Your task to perform on an android device: Empty the shopping cart on newegg. Add "dell xps" to the cart on newegg Image 0: 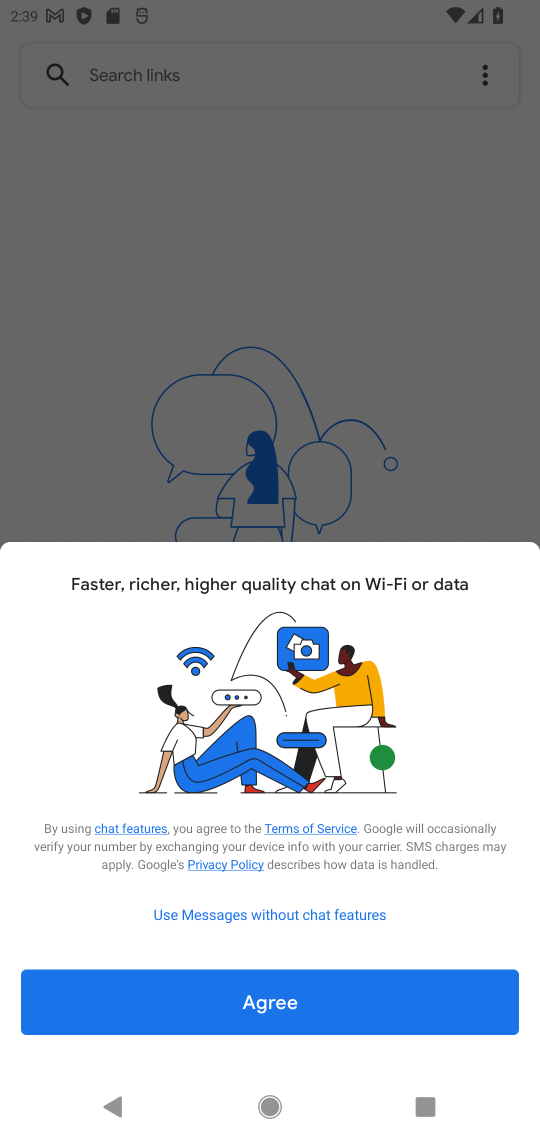
Step 0: press home button
Your task to perform on an android device: Empty the shopping cart on newegg. Add "dell xps" to the cart on newegg Image 1: 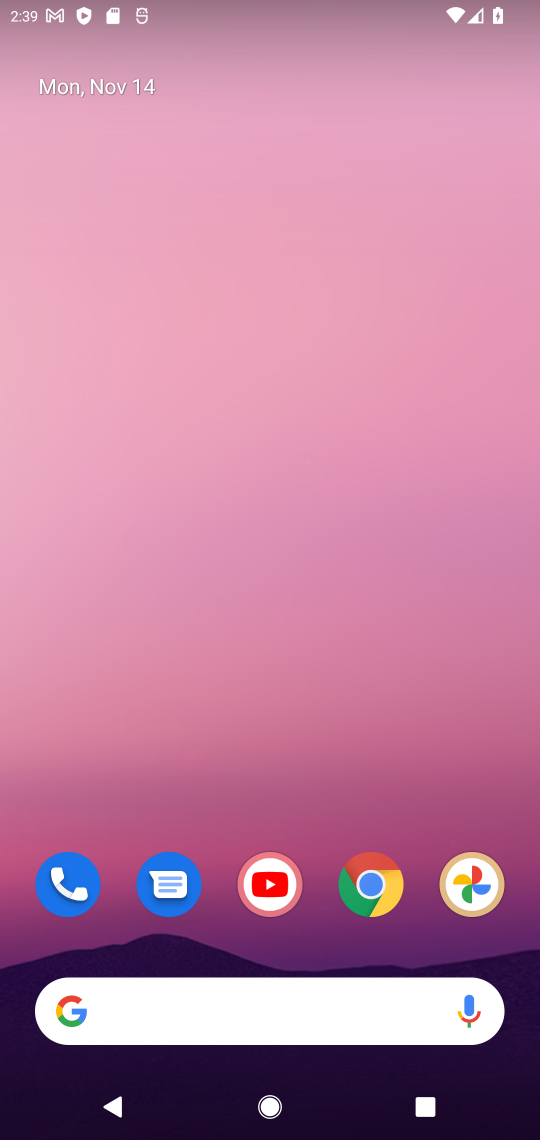
Step 1: click (369, 896)
Your task to perform on an android device: Empty the shopping cart on newegg. Add "dell xps" to the cart on newegg Image 2: 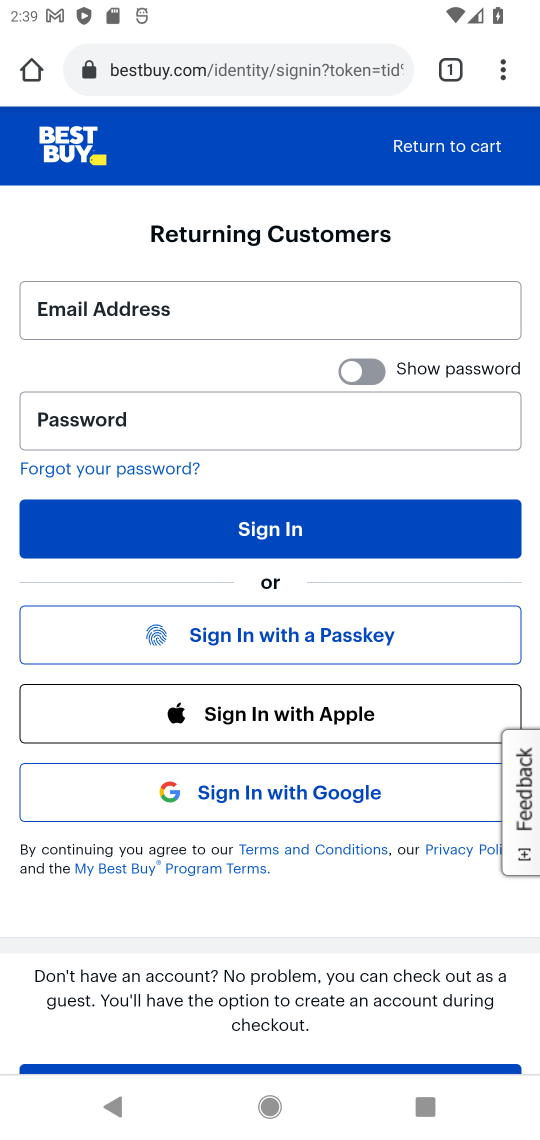
Step 2: click (330, 51)
Your task to perform on an android device: Empty the shopping cart on newegg. Add "dell xps" to the cart on newegg Image 3: 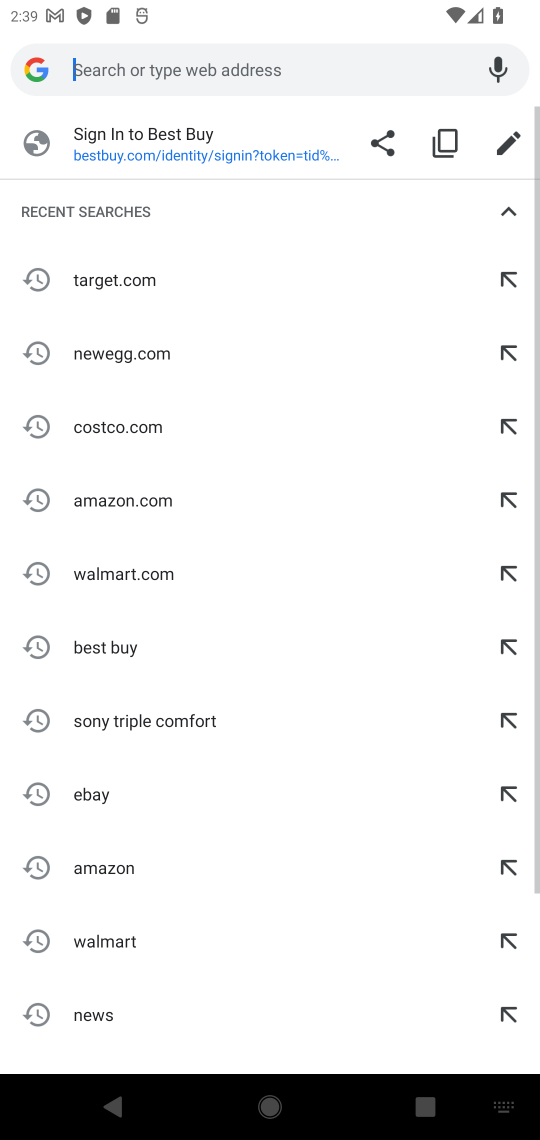
Step 3: click (129, 353)
Your task to perform on an android device: Empty the shopping cart on newegg. Add "dell xps" to the cart on newegg Image 4: 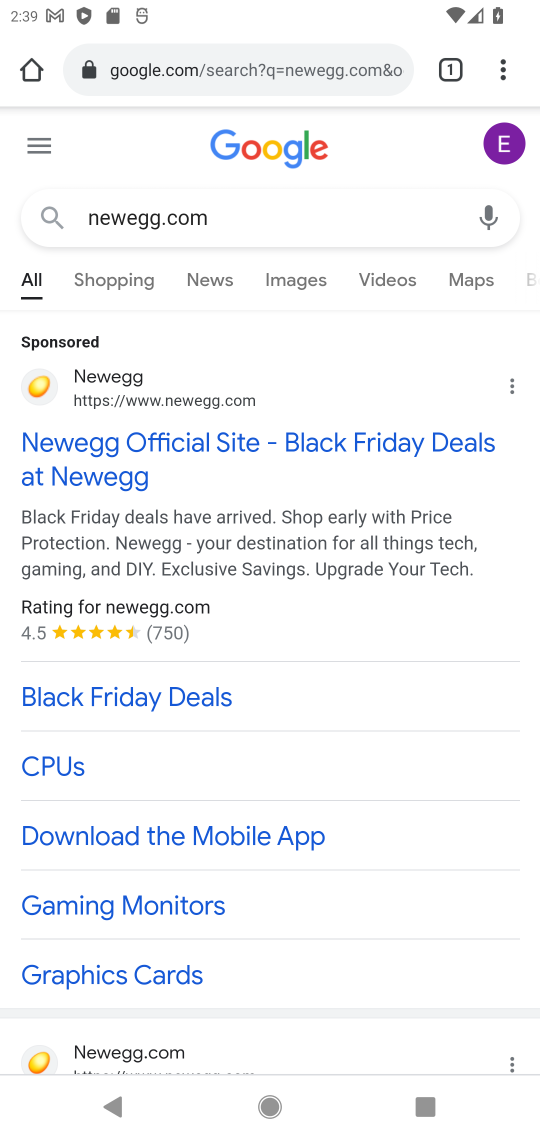
Step 4: click (143, 395)
Your task to perform on an android device: Empty the shopping cart on newegg. Add "dell xps" to the cart on newegg Image 5: 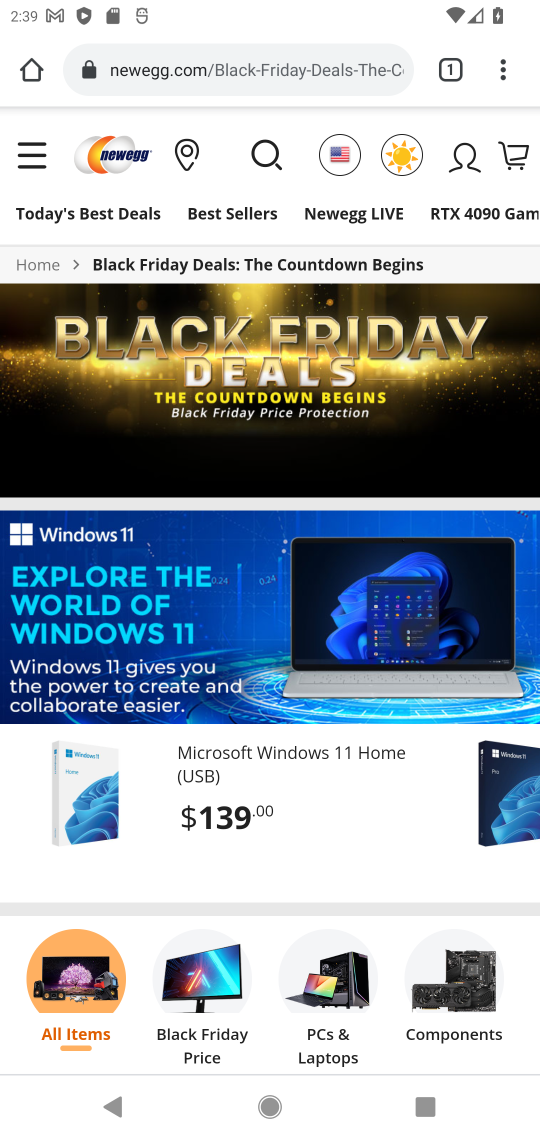
Step 5: click (504, 152)
Your task to perform on an android device: Empty the shopping cart on newegg. Add "dell xps" to the cart on newegg Image 6: 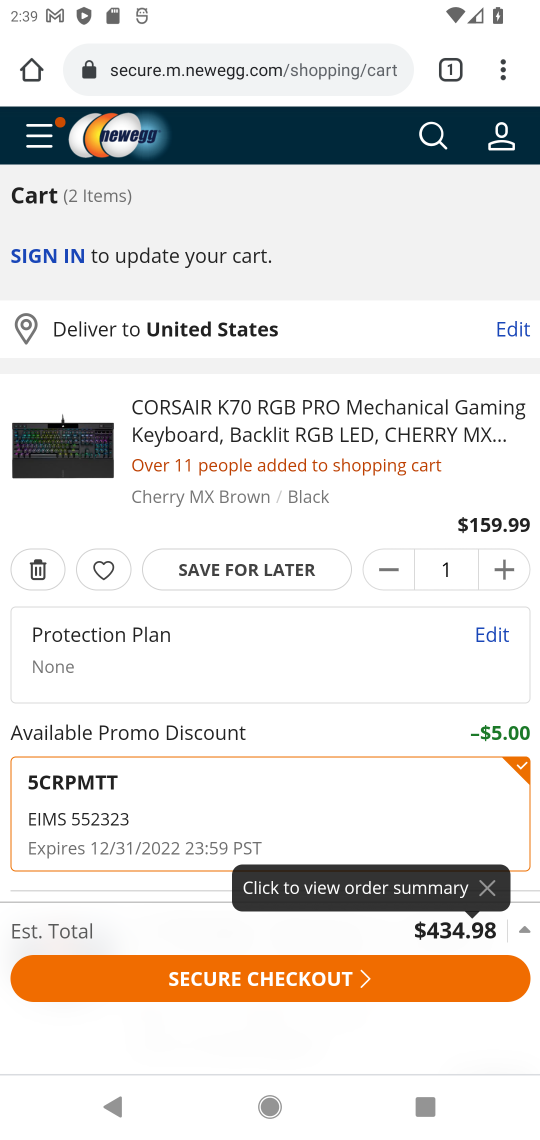
Step 6: click (42, 569)
Your task to perform on an android device: Empty the shopping cart on newegg. Add "dell xps" to the cart on newegg Image 7: 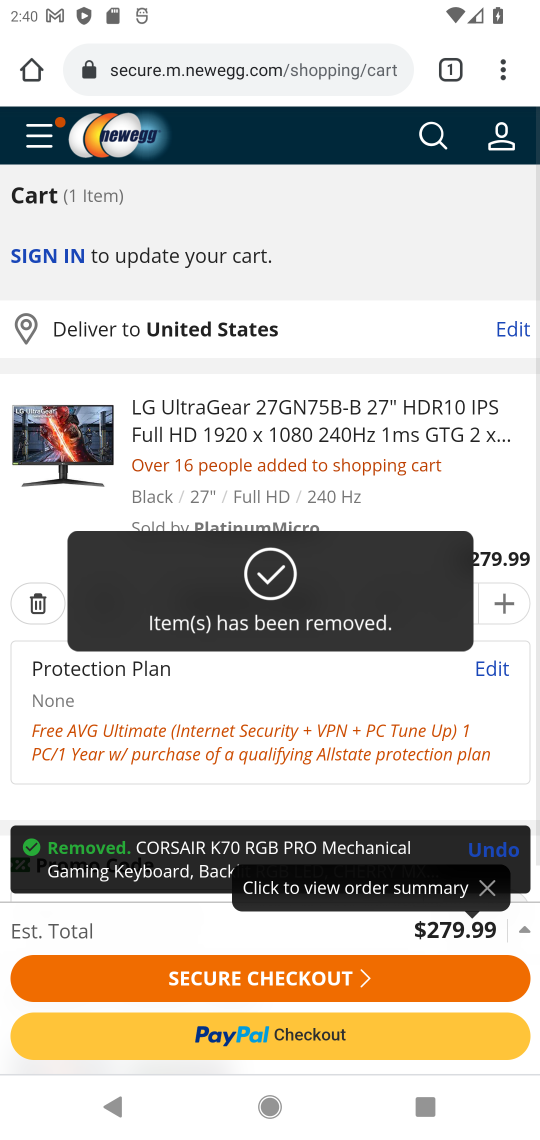
Step 7: click (32, 610)
Your task to perform on an android device: Empty the shopping cart on newegg. Add "dell xps" to the cart on newegg Image 8: 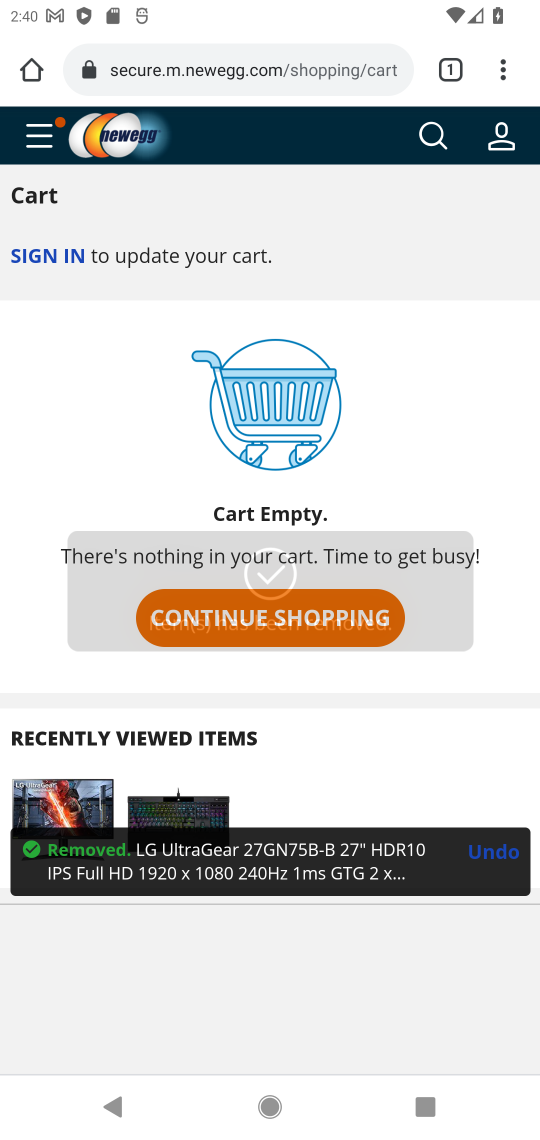
Step 8: click (427, 137)
Your task to perform on an android device: Empty the shopping cart on newegg. Add "dell xps" to the cart on newegg Image 9: 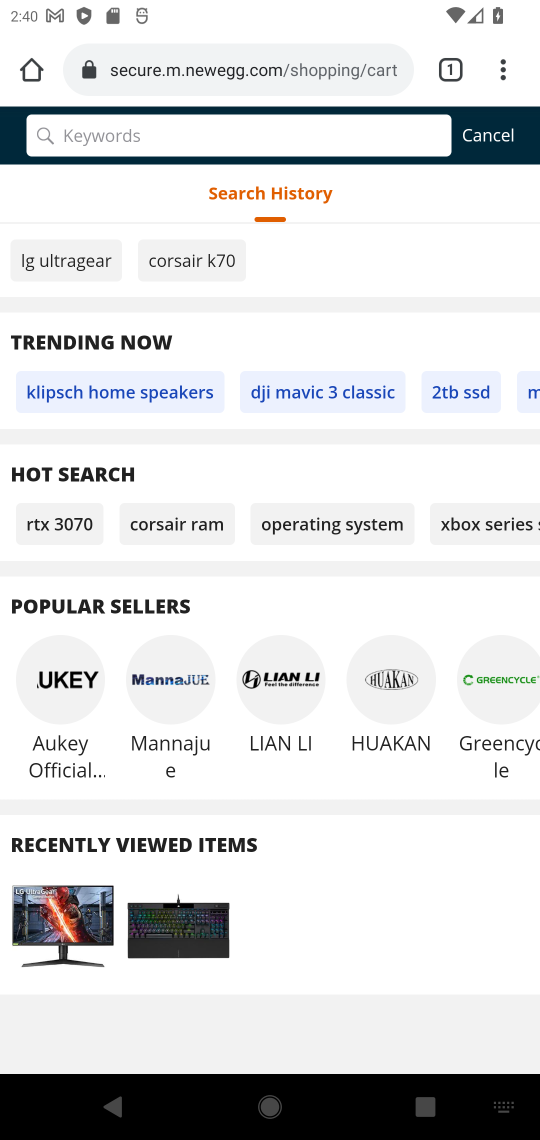
Step 9: type "dell xps"
Your task to perform on an android device: Empty the shopping cart on newegg. Add "dell xps" to the cart on newegg Image 10: 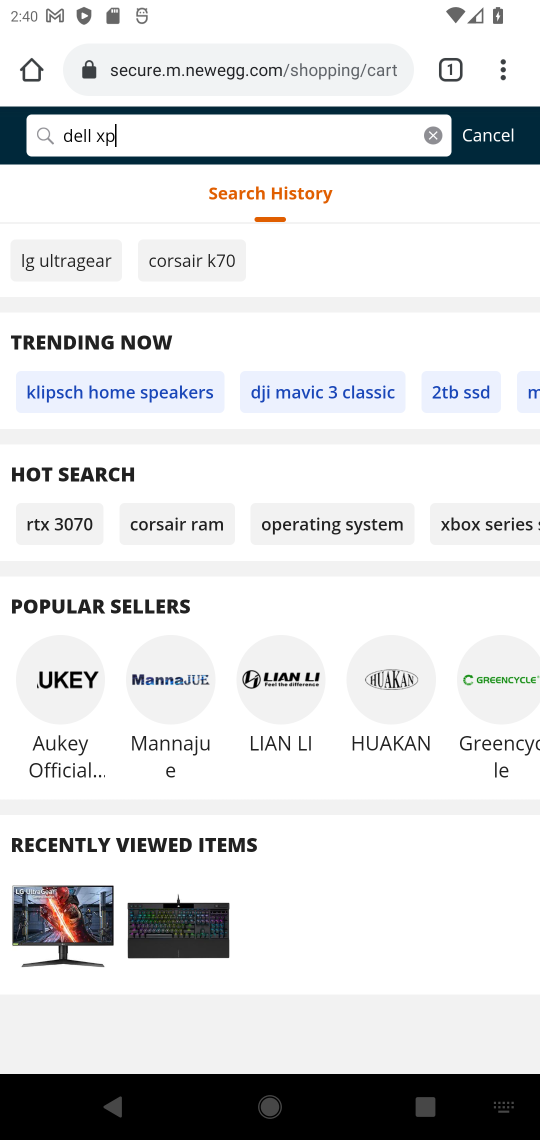
Step 10: press enter
Your task to perform on an android device: Empty the shopping cart on newegg. Add "dell xps" to the cart on newegg Image 11: 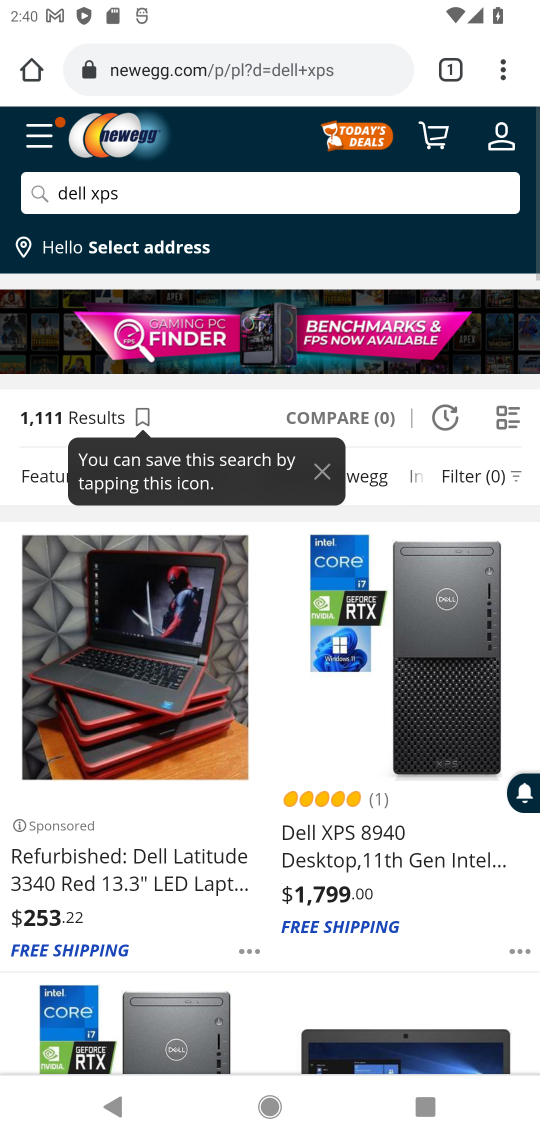
Step 11: drag from (387, 695) to (437, 419)
Your task to perform on an android device: Empty the shopping cart on newegg. Add "dell xps" to the cart on newegg Image 12: 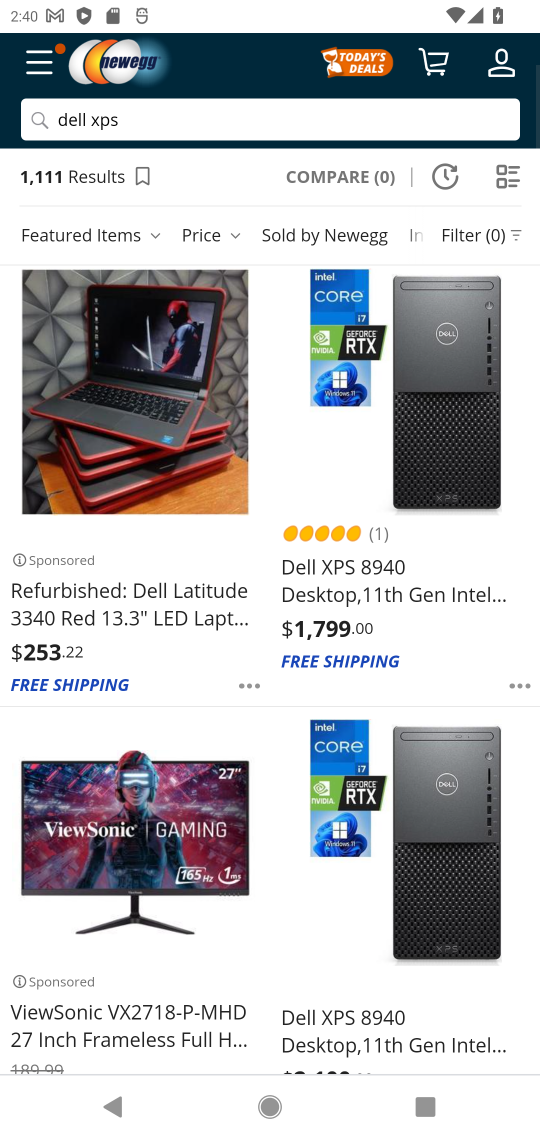
Step 12: click (391, 374)
Your task to perform on an android device: Empty the shopping cart on newegg. Add "dell xps" to the cart on newegg Image 13: 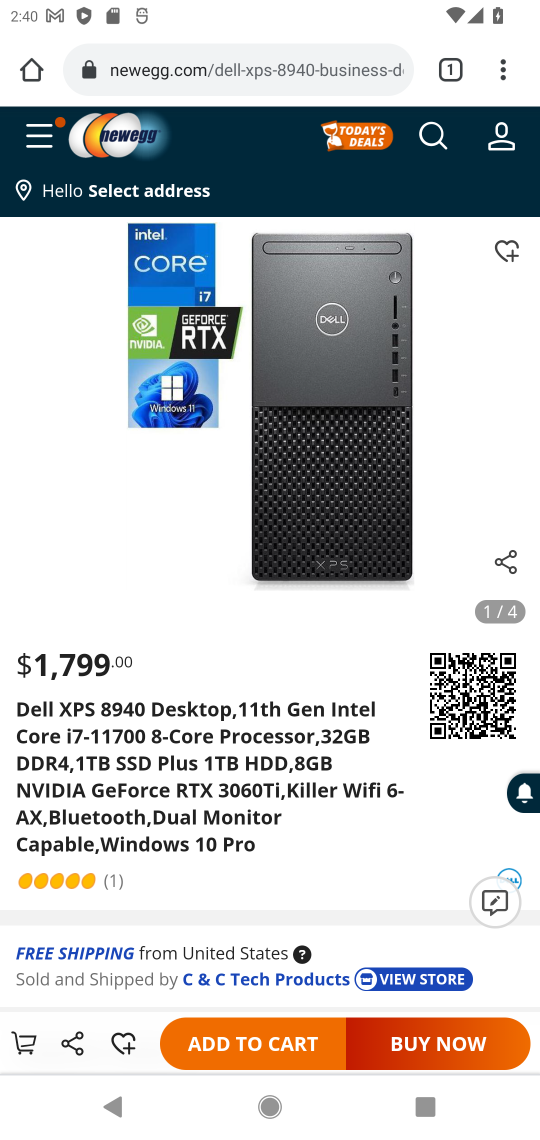
Step 13: click (279, 1039)
Your task to perform on an android device: Empty the shopping cart on newegg. Add "dell xps" to the cart on newegg Image 14: 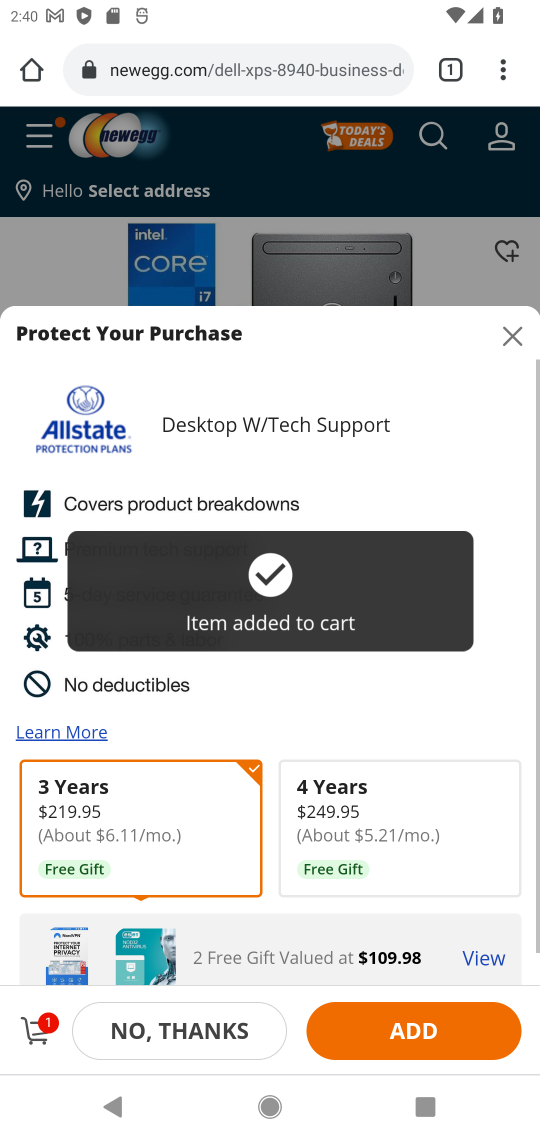
Step 14: task complete